Your task to perform on an android device: check storage Image 0: 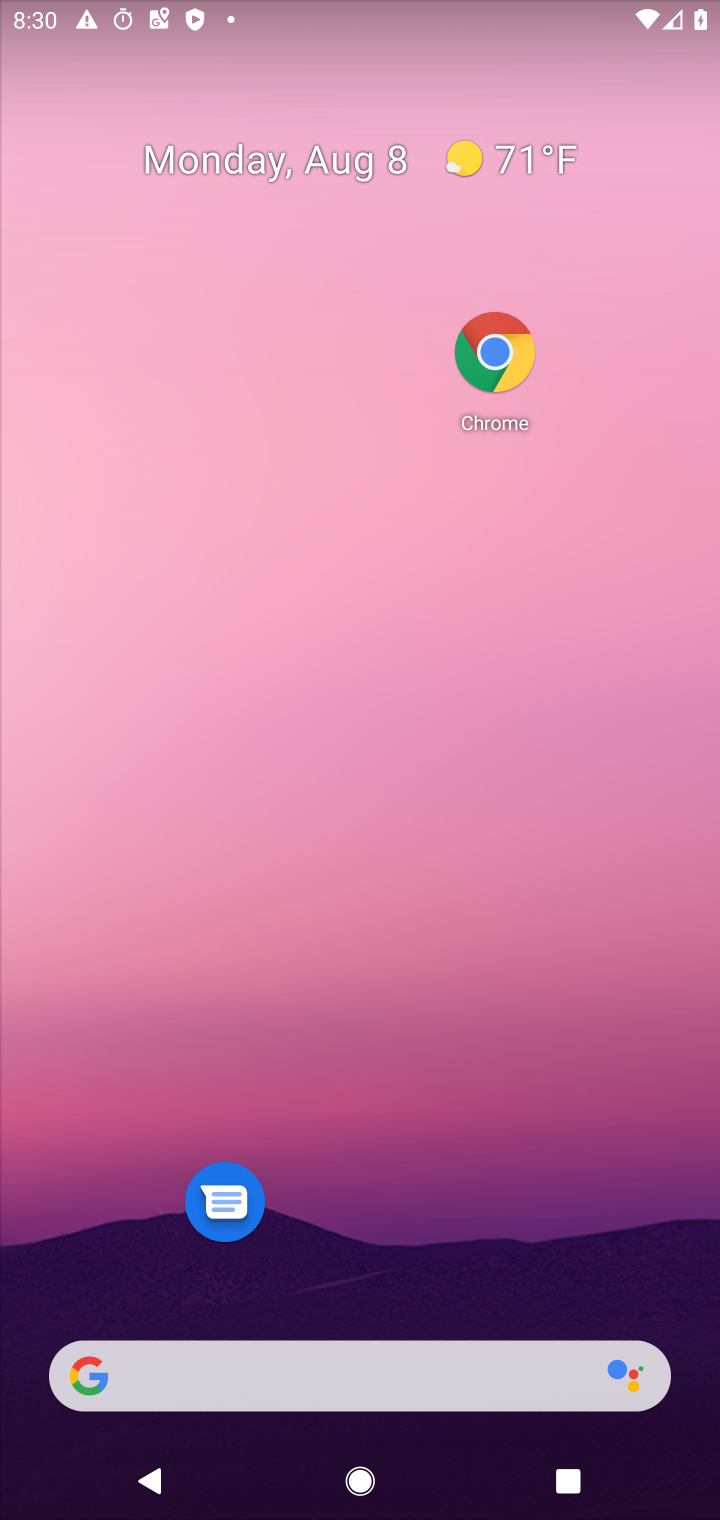
Step 0: drag from (418, 824) to (491, 64)
Your task to perform on an android device: check storage Image 1: 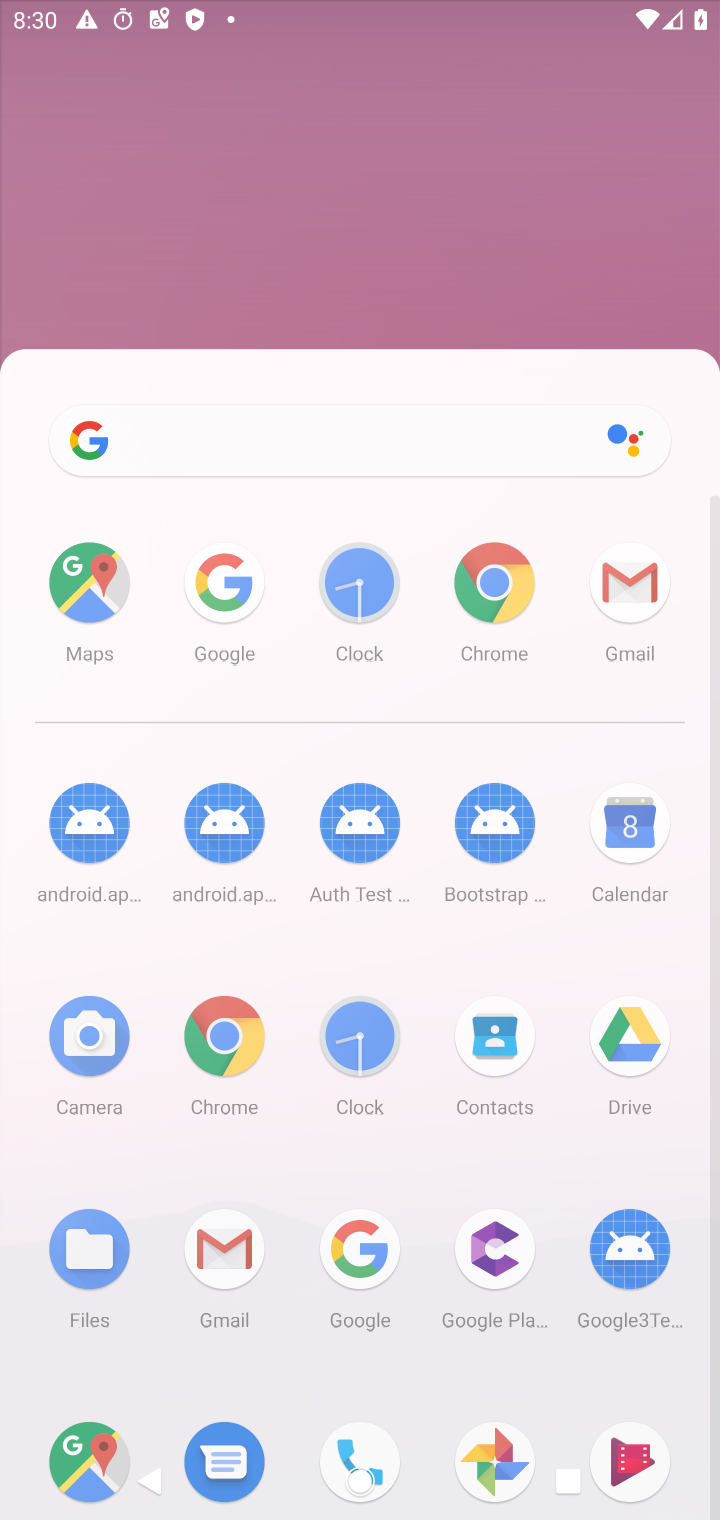
Step 1: drag from (390, 1082) to (489, 322)
Your task to perform on an android device: check storage Image 2: 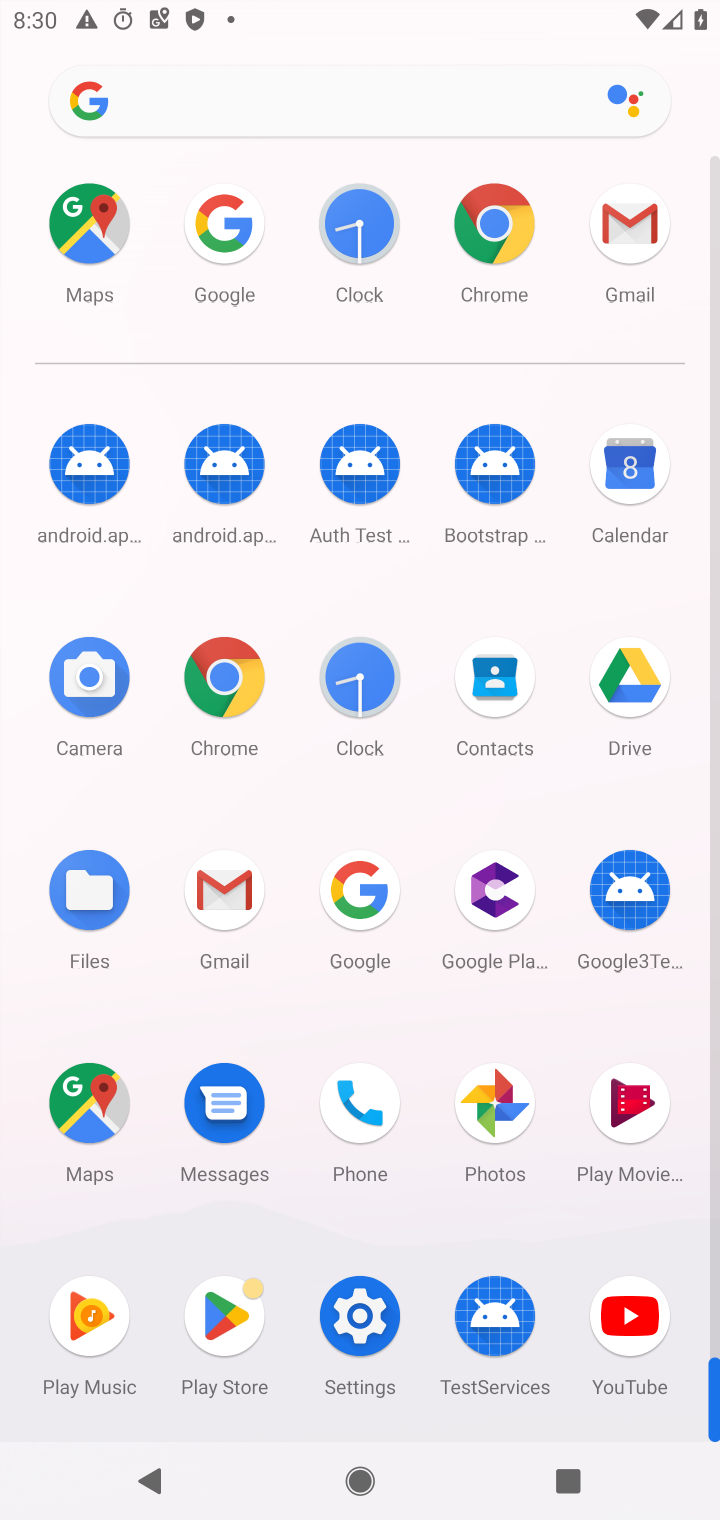
Step 2: click (359, 1337)
Your task to perform on an android device: check storage Image 3: 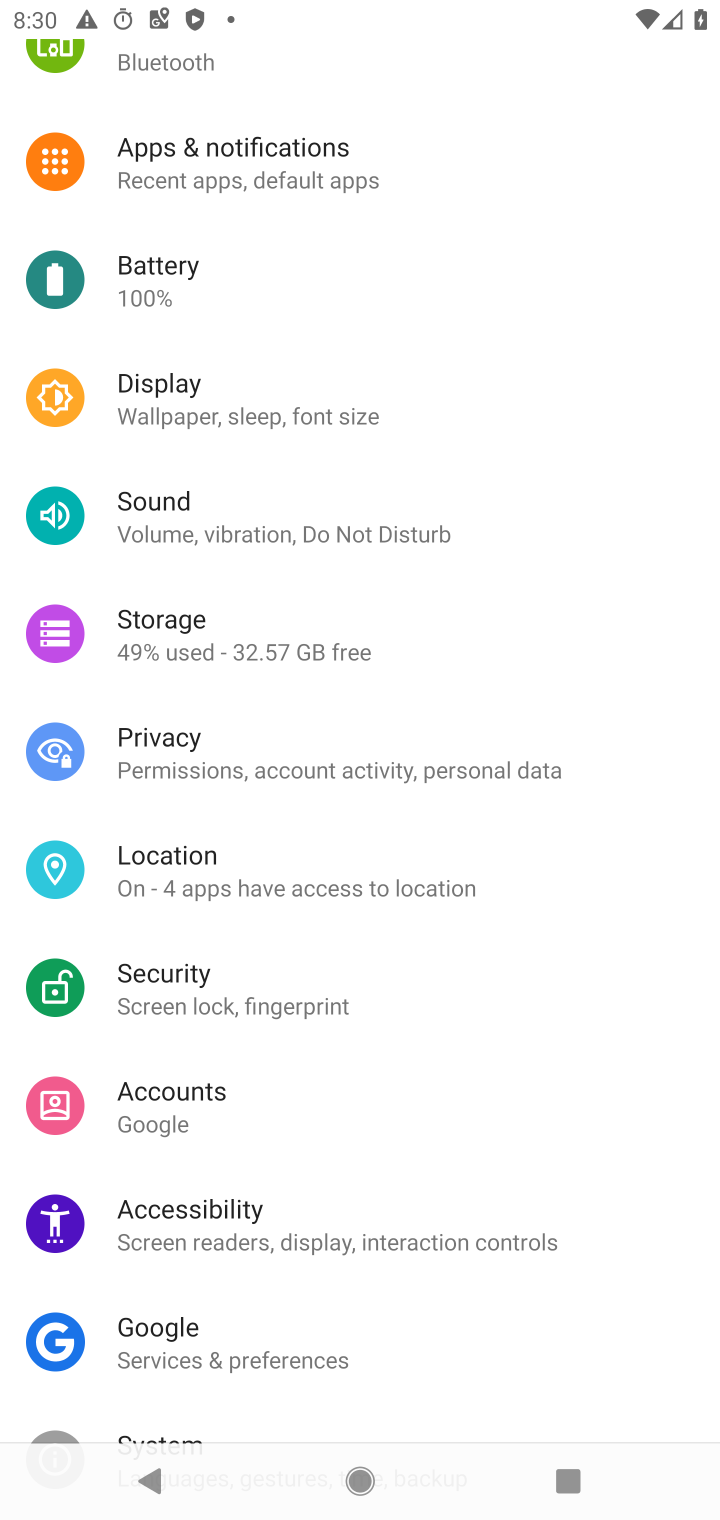
Step 3: click (160, 631)
Your task to perform on an android device: check storage Image 4: 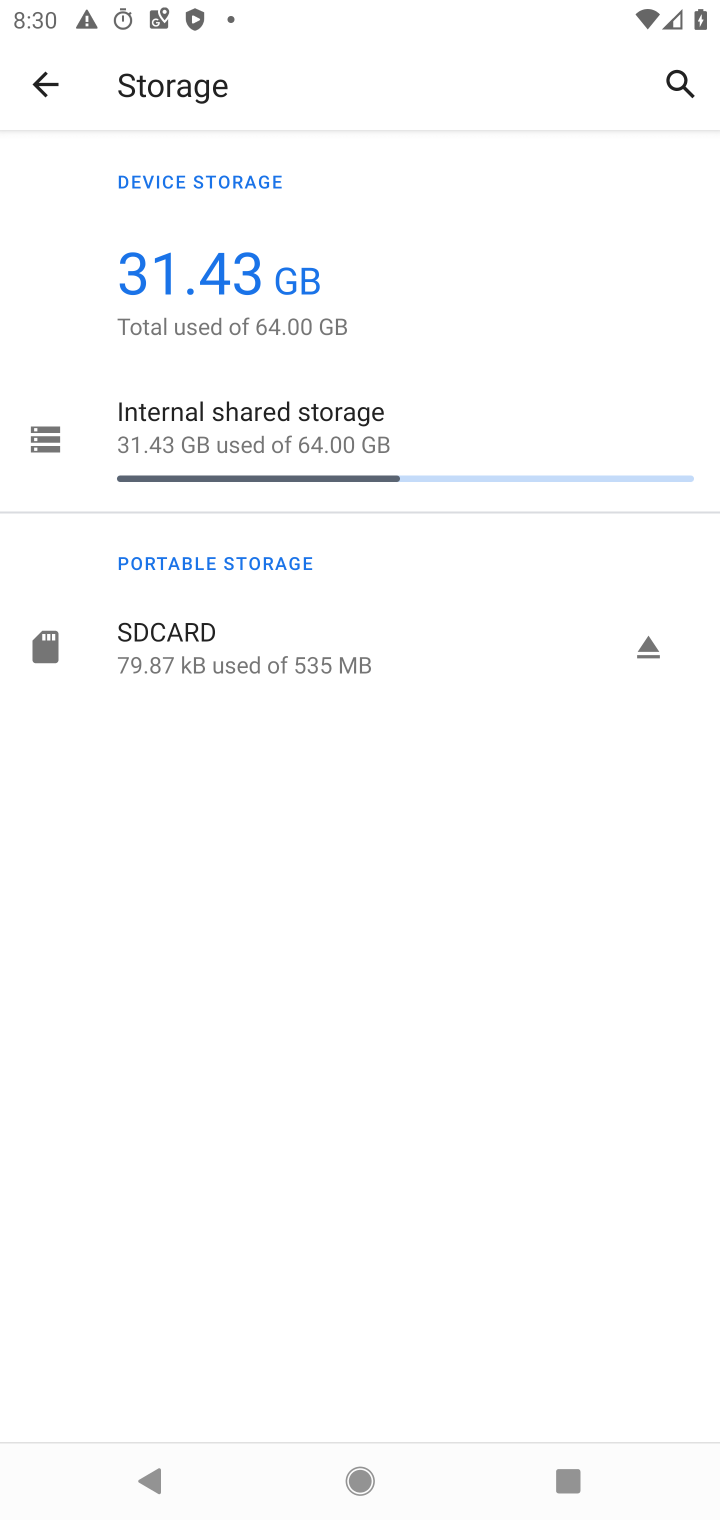
Step 4: click (291, 442)
Your task to perform on an android device: check storage Image 5: 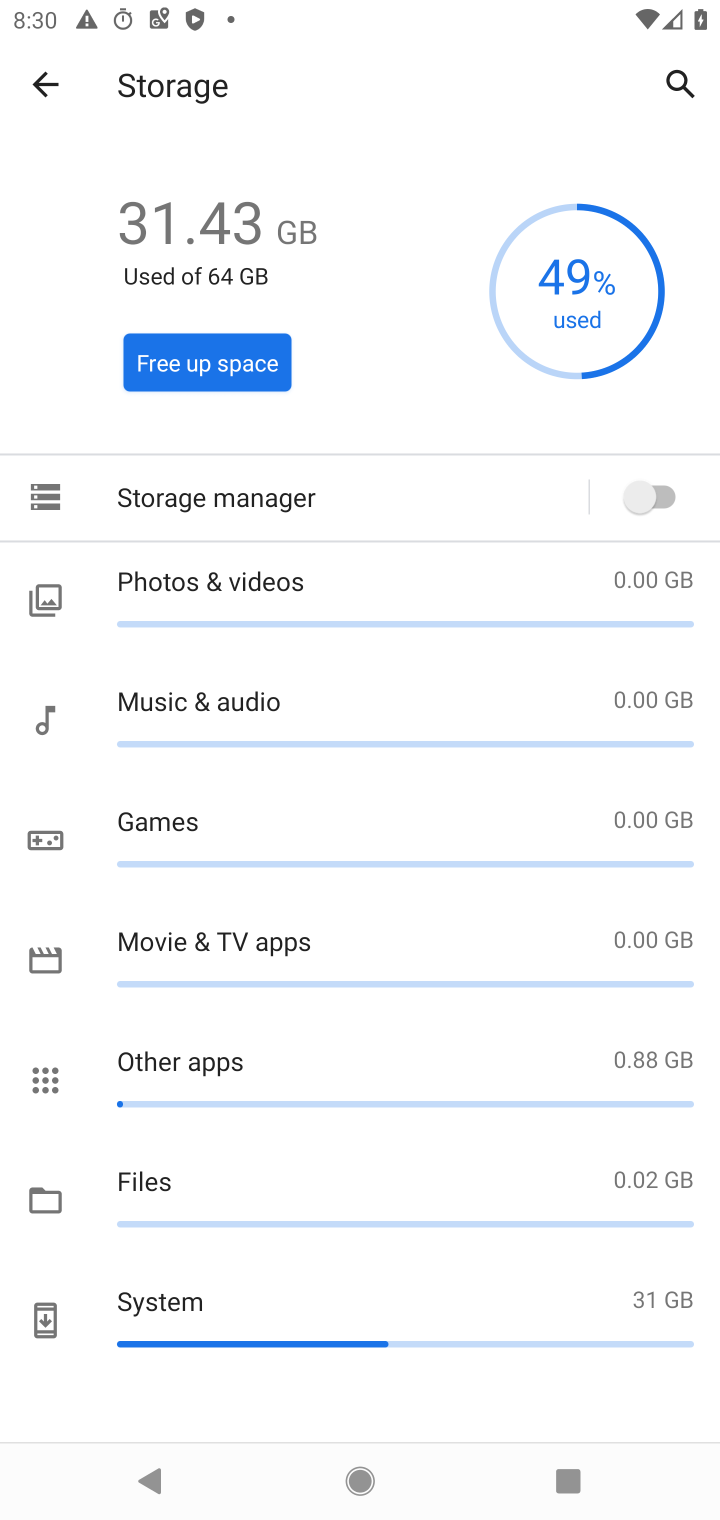
Step 5: task complete